Your task to perform on an android device: Show the shopping cart on bestbuy. Search for rayovac triple a on bestbuy, select the first entry, add it to the cart, then select checkout. Image 0: 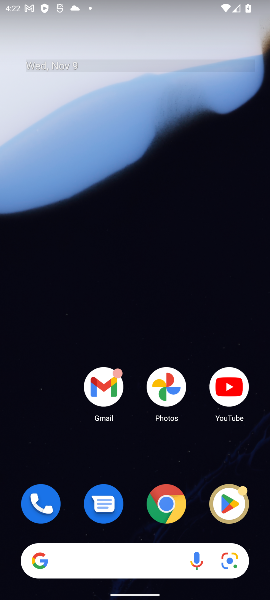
Step 0: drag from (124, 515) to (127, 198)
Your task to perform on an android device: Show the shopping cart on bestbuy. Search for rayovac triple a on bestbuy, select the first entry, add it to the cart, then select checkout. Image 1: 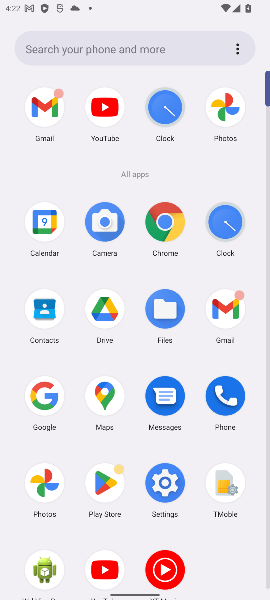
Step 1: click (52, 400)
Your task to perform on an android device: Show the shopping cart on bestbuy. Search for rayovac triple a on bestbuy, select the first entry, add it to the cart, then select checkout. Image 2: 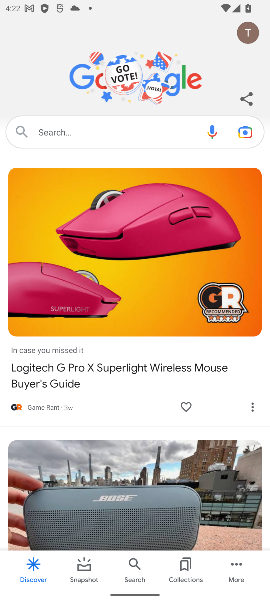
Step 2: click (82, 129)
Your task to perform on an android device: Show the shopping cart on bestbuy. Search for rayovac triple a on bestbuy, select the first entry, add it to the cart, then select checkout. Image 3: 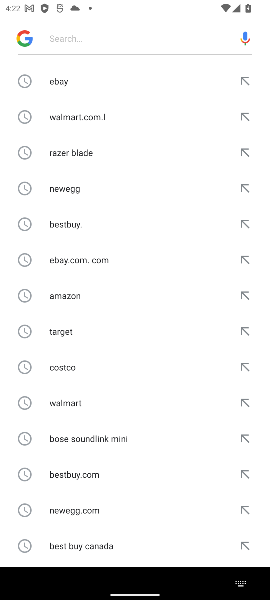
Step 3: type "bestbuy"
Your task to perform on an android device: Show the shopping cart on bestbuy. Search for rayovac triple a on bestbuy, select the first entry, add it to the cart, then select checkout. Image 4: 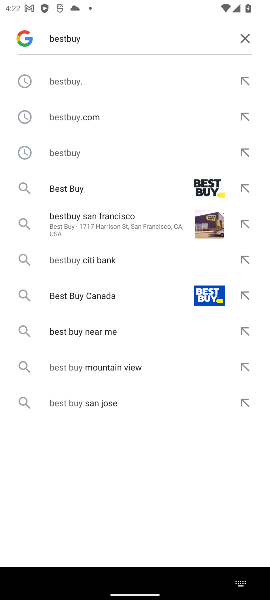
Step 4: click (133, 180)
Your task to perform on an android device: Show the shopping cart on bestbuy. Search for rayovac triple a on bestbuy, select the first entry, add it to the cart, then select checkout. Image 5: 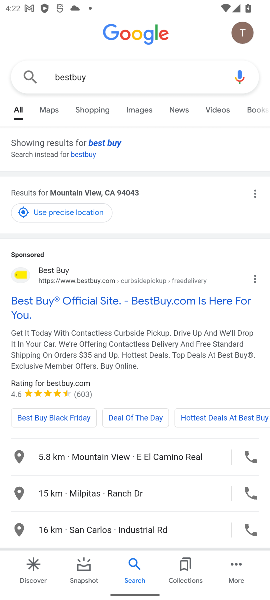
Step 5: click (57, 301)
Your task to perform on an android device: Show the shopping cart on bestbuy. Search for rayovac triple a on bestbuy, select the first entry, add it to the cart, then select checkout. Image 6: 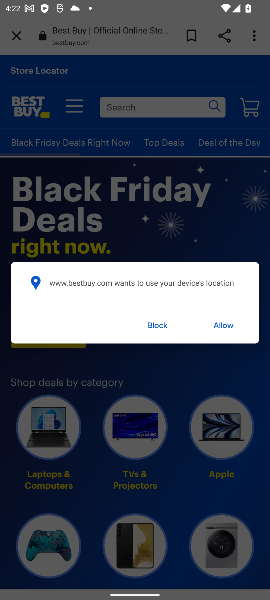
Step 6: click (158, 320)
Your task to perform on an android device: Show the shopping cart on bestbuy. Search for rayovac triple a on bestbuy, select the first entry, add it to the cart, then select checkout. Image 7: 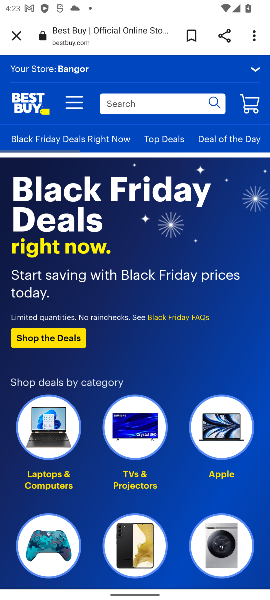
Step 7: click (152, 98)
Your task to perform on an android device: Show the shopping cart on bestbuy. Search for rayovac triple a on bestbuy, select the first entry, add it to the cart, then select checkout. Image 8: 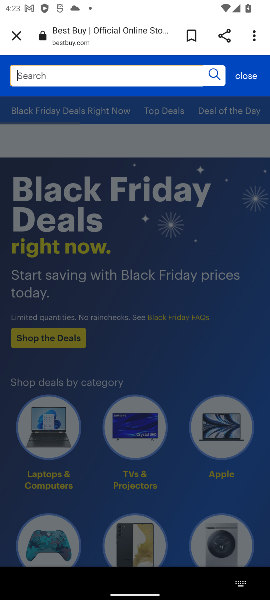
Step 8: type "rayovac triple a "
Your task to perform on an android device: Show the shopping cart on bestbuy. Search for rayovac triple a on bestbuy, select the first entry, add it to the cart, then select checkout. Image 9: 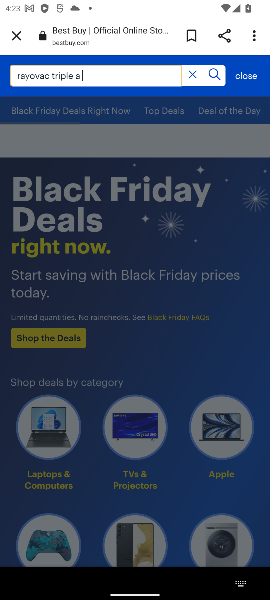
Step 9: click (212, 70)
Your task to perform on an android device: Show the shopping cart on bestbuy. Search for rayovac triple a on bestbuy, select the first entry, add it to the cart, then select checkout. Image 10: 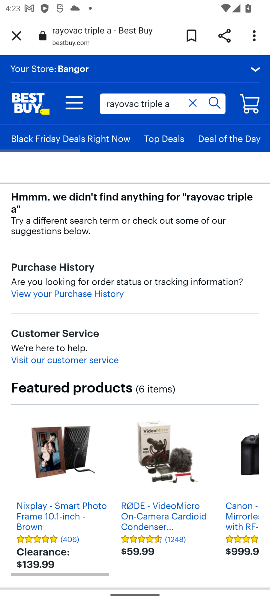
Step 10: drag from (192, 447) to (255, 159)
Your task to perform on an android device: Show the shopping cart on bestbuy. Search for rayovac triple a on bestbuy, select the first entry, add it to the cart, then select checkout. Image 11: 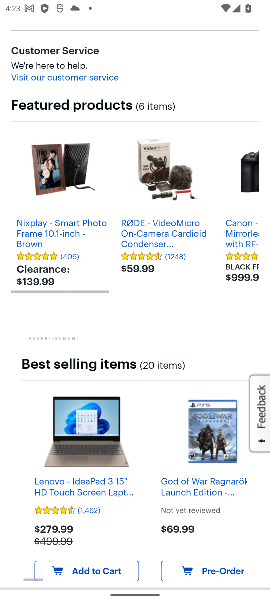
Step 11: click (67, 483)
Your task to perform on an android device: Show the shopping cart on bestbuy. Search for rayovac triple a on bestbuy, select the first entry, add it to the cart, then select checkout. Image 12: 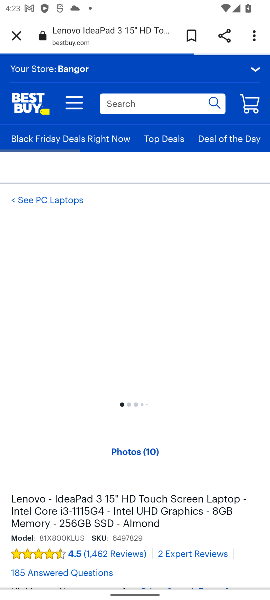
Step 12: drag from (155, 478) to (205, 259)
Your task to perform on an android device: Show the shopping cart on bestbuy. Search for rayovac triple a on bestbuy, select the first entry, add it to the cart, then select checkout. Image 13: 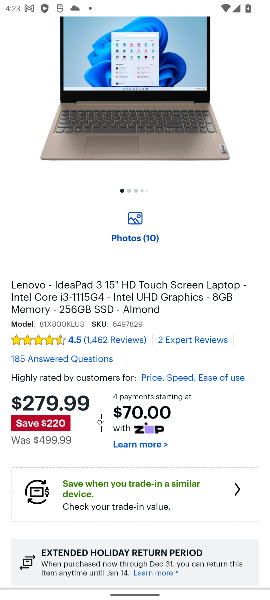
Step 13: drag from (193, 435) to (178, 305)
Your task to perform on an android device: Show the shopping cart on bestbuy. Search for rayovac triple a on bestbuy, select the first entry, add it to the cart, then select checkout. Image 14: 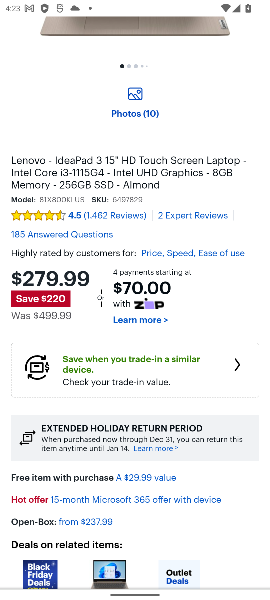
Step 14: drag from (199, 478) to (172, 195)
Your task to perform on an android device: Show the shopping cart on bestbuy. Search for rayovac triple a on bestbuy, select the first entry, add it to the cart, then select checkout. Image 15: 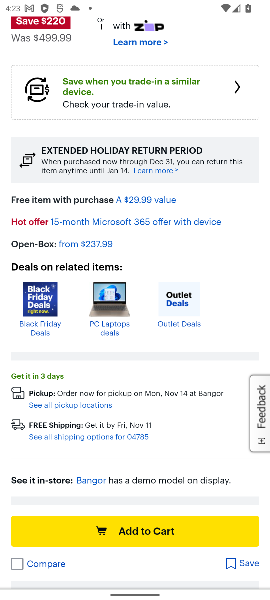
Step 15: click (134, 530)
Your task to perform on an android device: Show the shopping cart on bestbuy. Search for rayovac triple a on bestbuy, select the first entry, add it to the cart, then select checkout. Image 16: 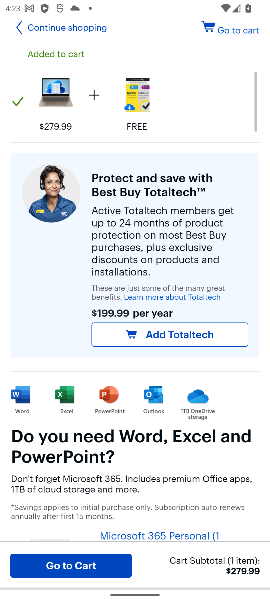
Step 16: click (79, 566)
Your task to perform on an android device: Show the shopping cart on bestbuy. Search for rayovac triple a on bestbuy, select the first entry, add it to the cart, then select checkout. Image 17: 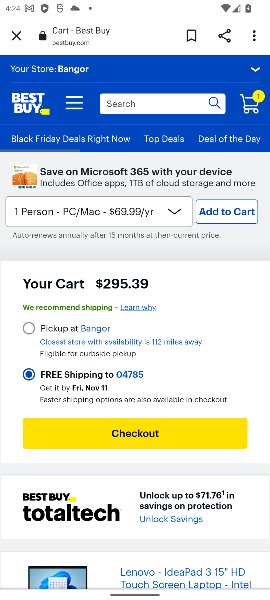
Step 17: click (139, 430)
Your task to perform on an android device: Show the shopping cart on bestbuy. Search for rayovac triple a on bestbuy, select the first entry, add it to the cart, then select checkout. Image 18: 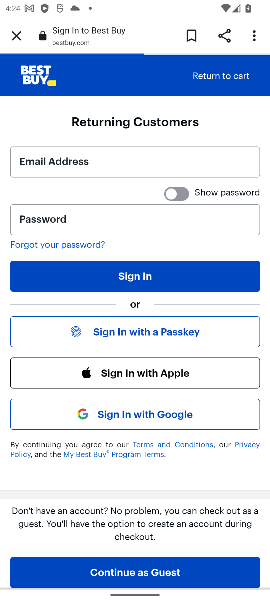
Step 18: task complete